Your task to perform on an android device: Empty the shopping cart on walmart. Search for energizer triple a on walmart, select the first entry, add it to the cart, then select checkout. Image 0: 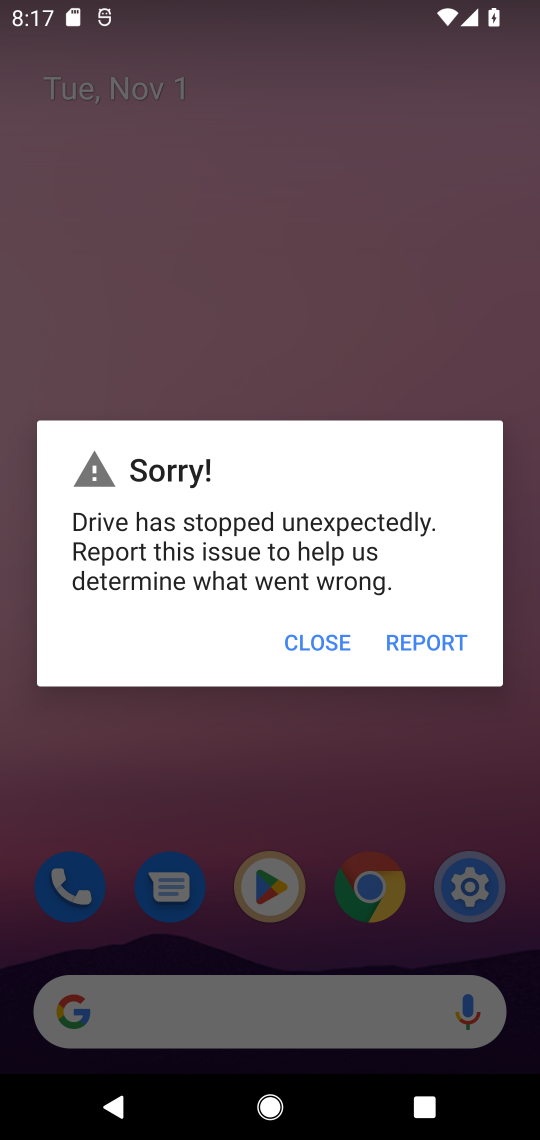
Step 0: press home button
Your task to perform on an android device: Empty the shopping cart on walmart. Search for energizer triple a on walmart, select the first entry, add it to the cart, then select checkout. Image 1: 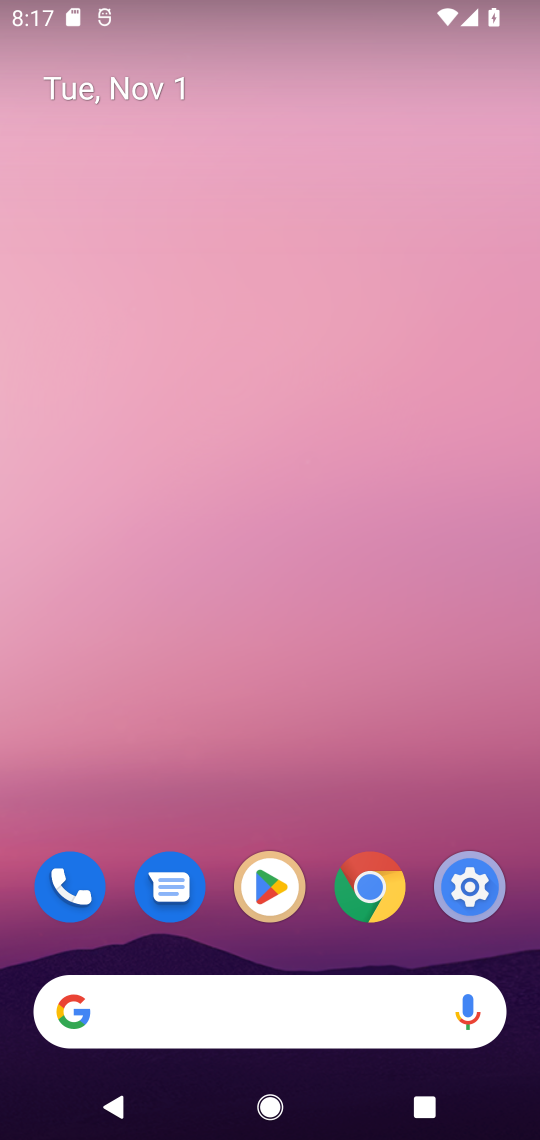
Step 1: drag from (246, 703) to (238, 242)
Your task to perform on an android device: Empty the shopping cart on walmart. Search for energizer triple a on walmart, select the first entry, add it to the cart, then select checkout. Image 2: 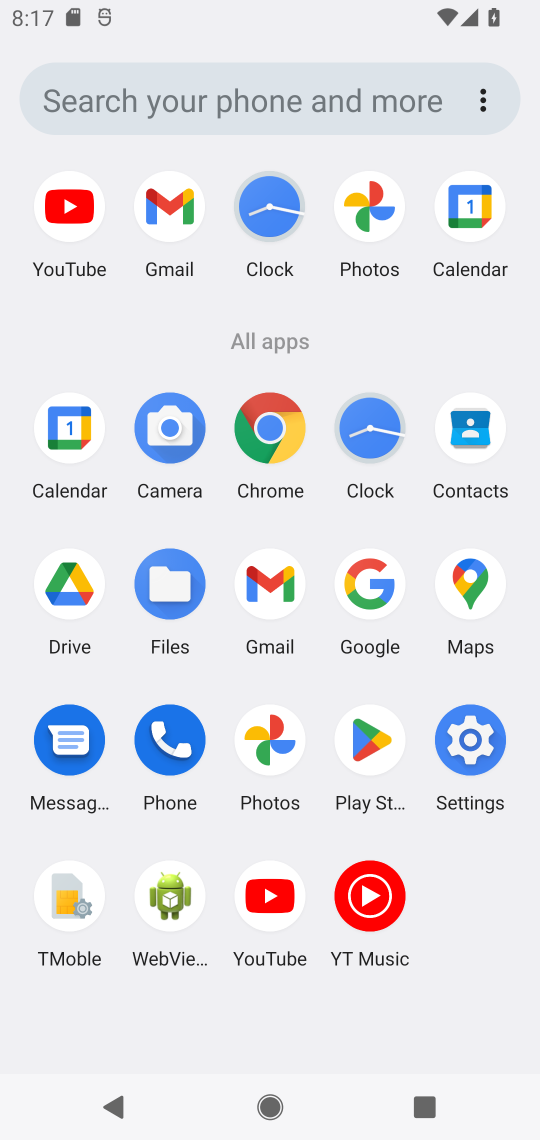
Step 2: click (383, 572)
Your task to perform on an android device: Empty the shopping cart on walmart. Search for energizer triple a on walmart, select the first entry, add it to the cart, then select checkout. Image 3: 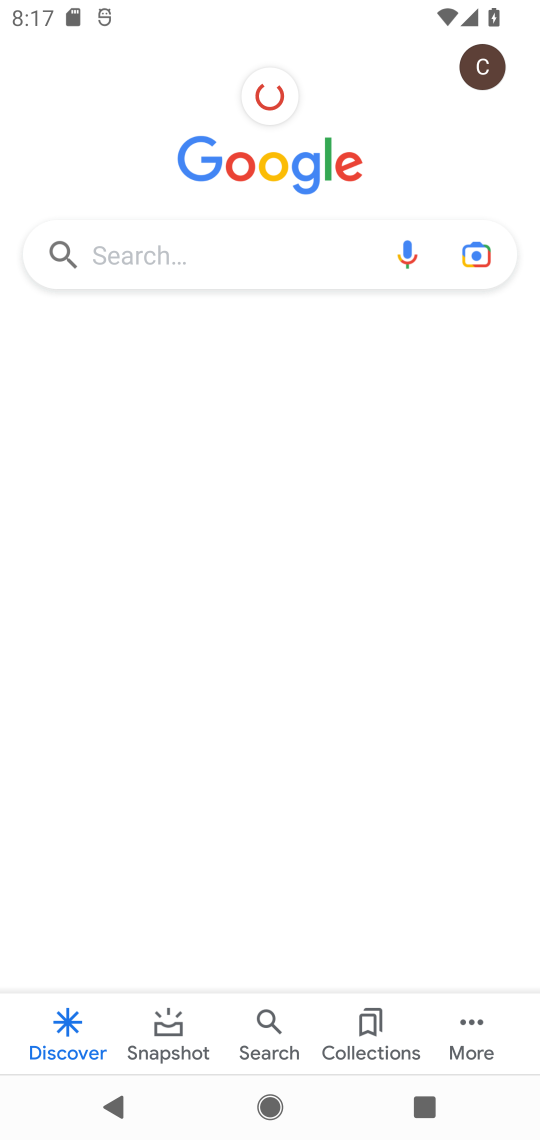
Step 3: click (197, 259)
Your task to perform on an android device: Empty the shopping cart on walmart. Search for energizer triple a on walmart, select the first entry, add it to the cart, then select checkout. Image 4: 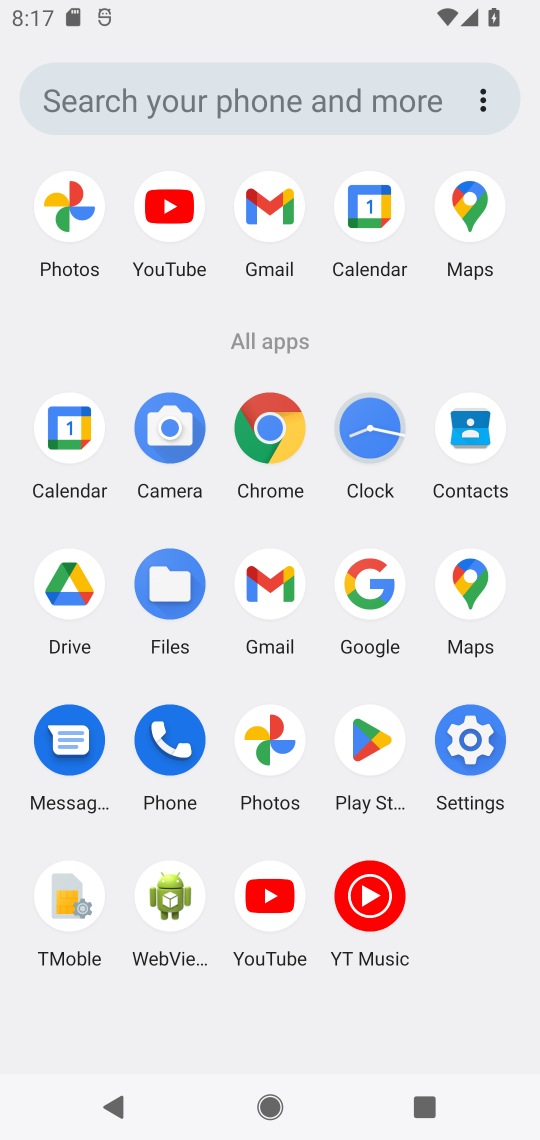
Step 4: click (383, 598)
Your task to perform on an android device: Empty the shopping cart on walmart. Search for energizer triple a on walmart, select the first entry, add it to the cart, then select checkout. Image 5: 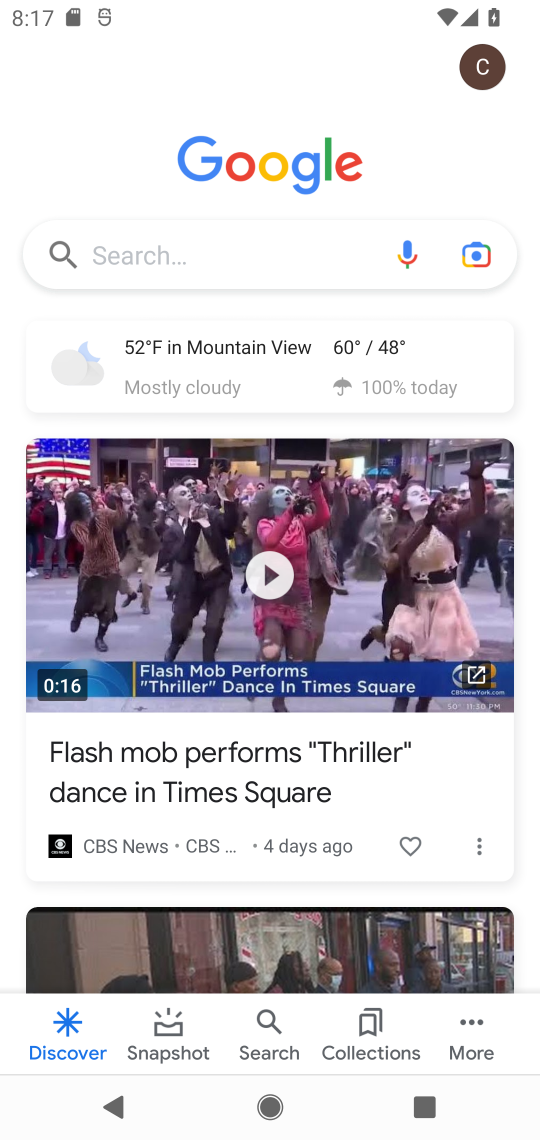
Step 5: click (265, 260)
Your task to perform on an android device: Empty the shopping cart on walmart. Search for energizer triple a on walmart, select the first entry, add it to the cart, then select checkout. Image 6: 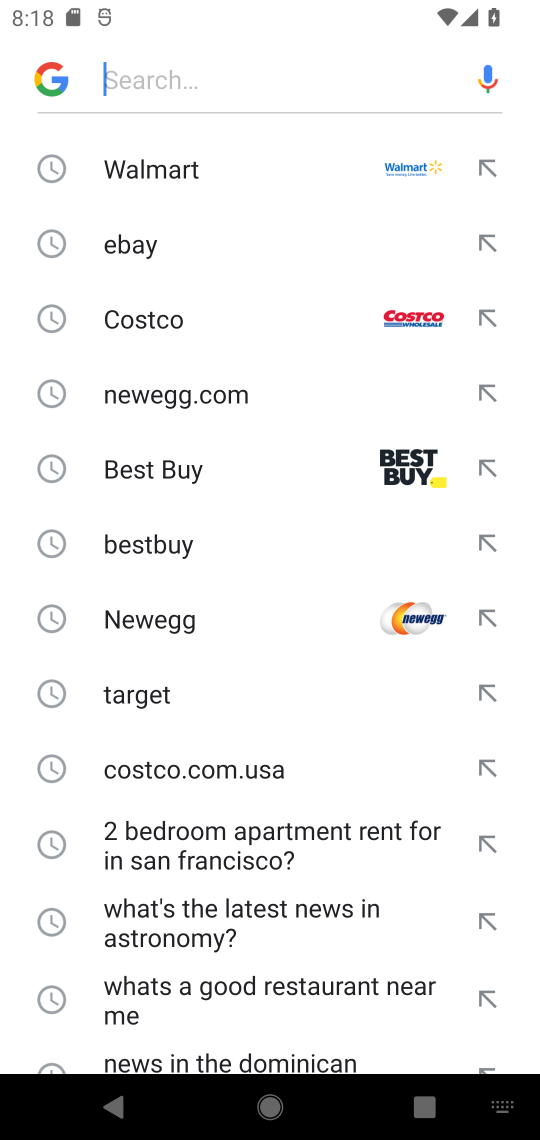
Step 6: click (334, 167)
Your task to perform on an android device: Empty the shopping cart on walmart. Search for energizer triple a on walmart, select the first entry, add it to the cart, then select checkout. Image 7: 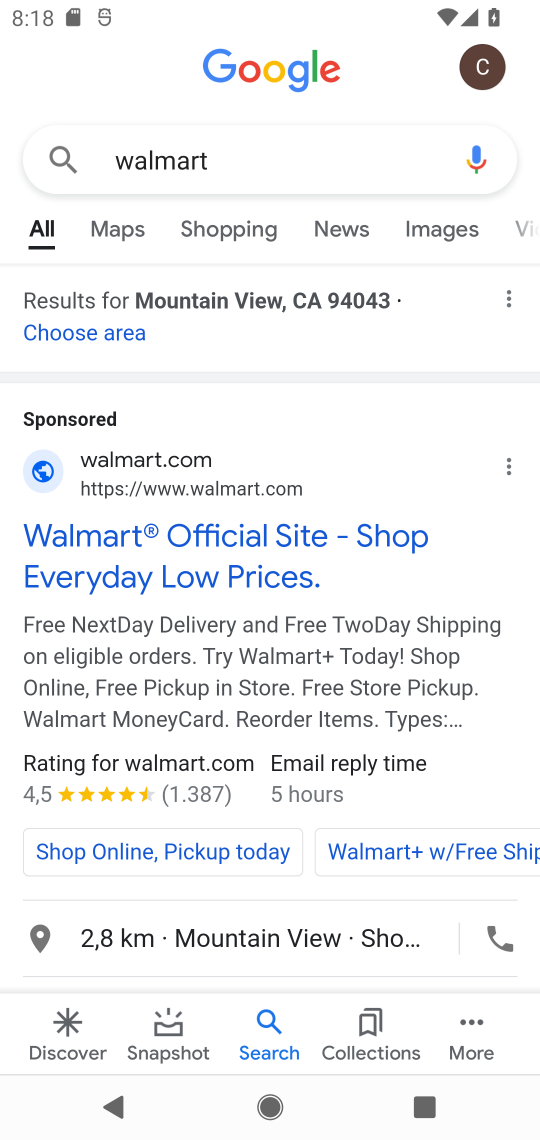
Step 7: click (142, 469)
Your task to perform on an android device: Empty the shopping cart on walmart. Search for energizer triple a on walmart, select the first entry, add it to the cart, then select checkout. Image 8: 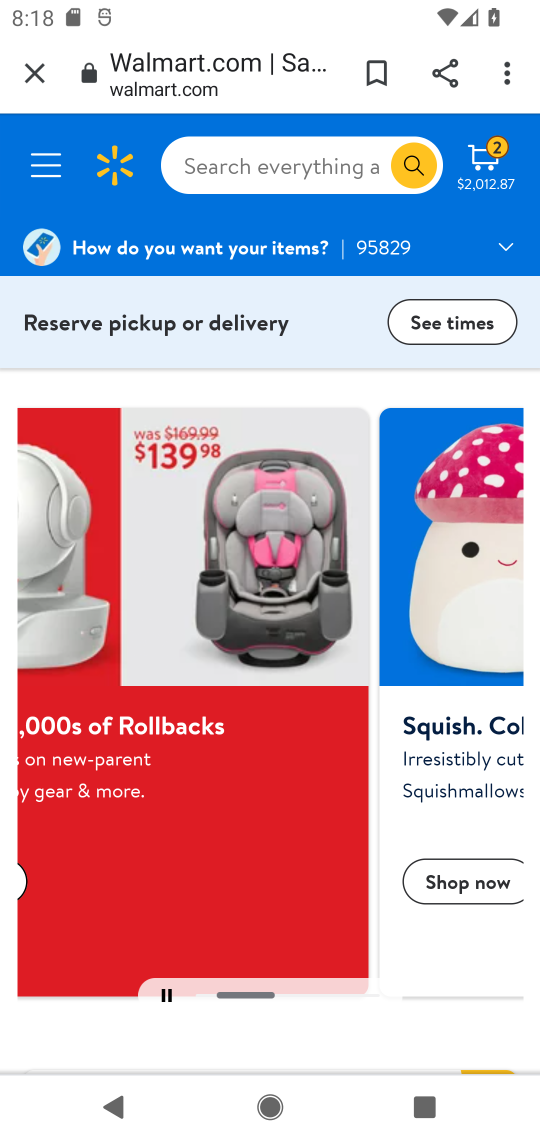
Step 8: click (251, 157)
Your task to perform on an android device: Empty the shopping cart on walmart. Search for energizer triple a on walmart, select the first entry, add it to the cart, then select checkout. Image 9: 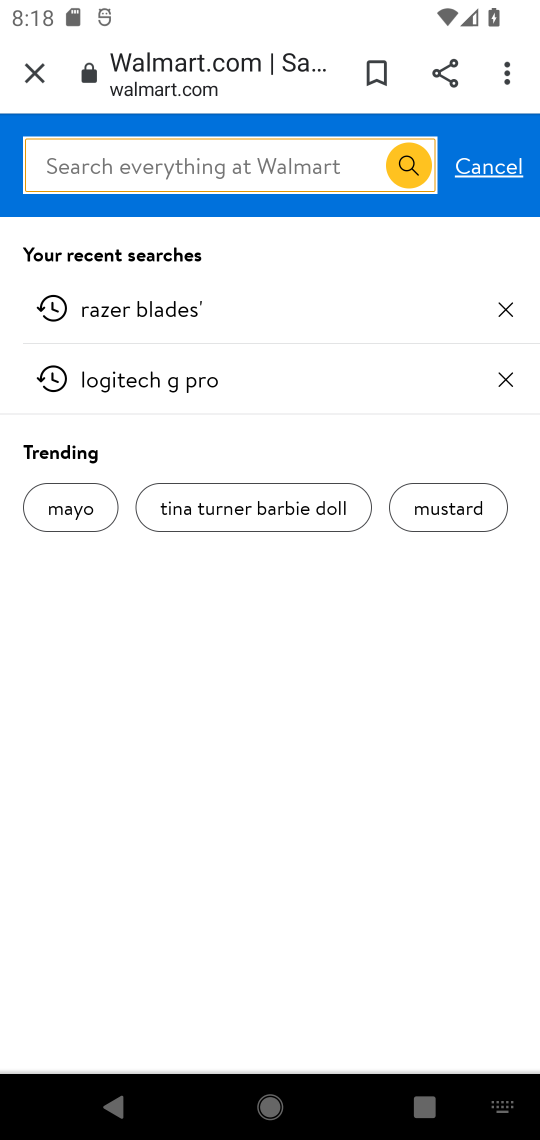
Step 9: type "energizer triple a "
Your task to perform on an android device: Empty the shopping cart on walmart. Search for energizer triple a on walmart, select the first entry, add it to the cart, then select checkout. Image 10: 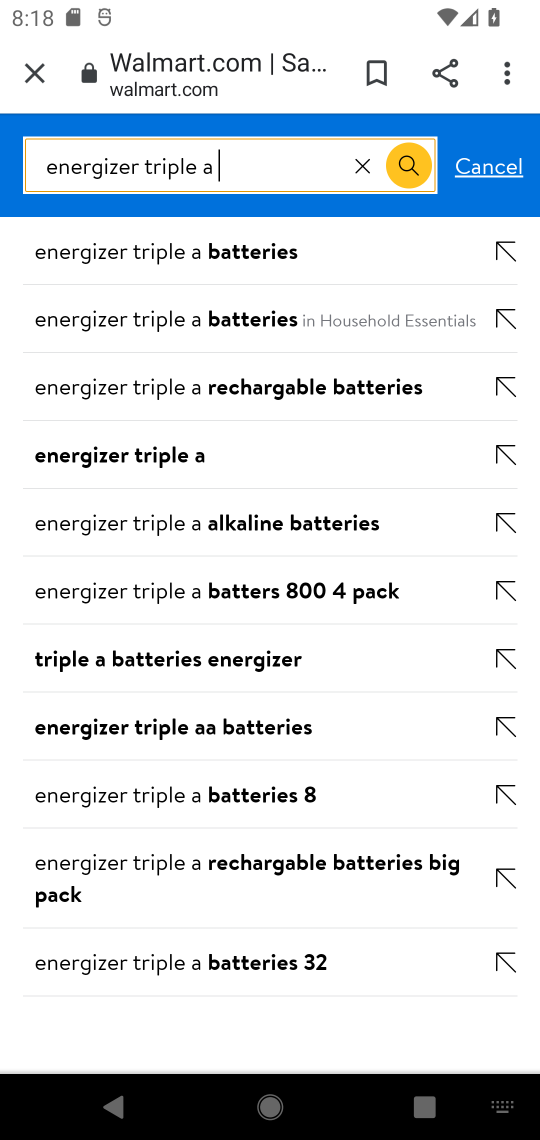
Step 10: click (192, 254)
Your task to perform on an android device: Empty the shopping cart on walmart. Search for energizer triple a on walmart, select the first entry, add it to the cart, then select checkout. Image 11: 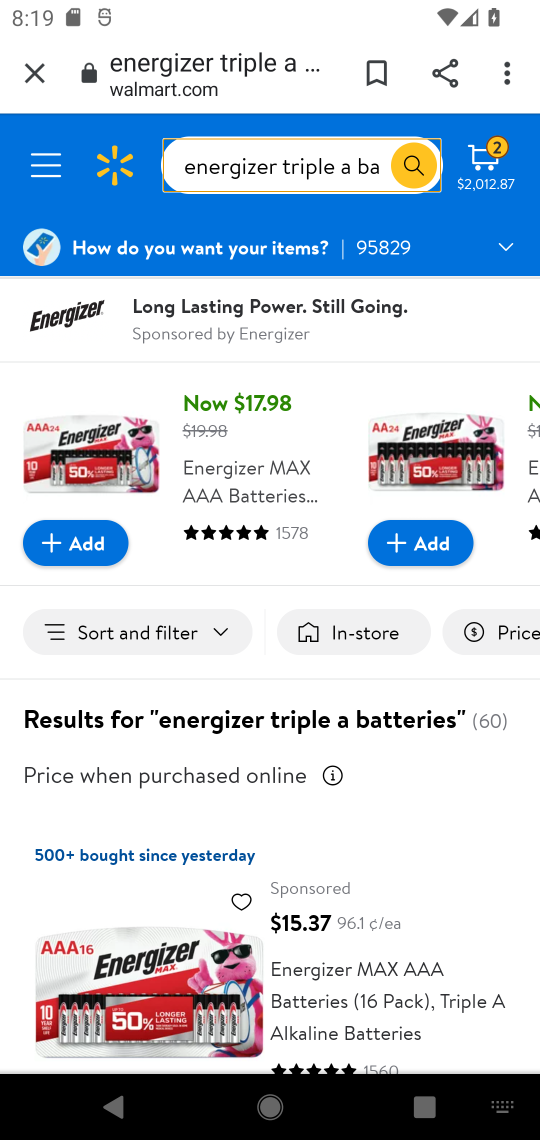
Step 11: drag from (405, 774) to (349, 471)
Your task to perform on an android device: Empty the shopping cart on walmart. Search for energizer triple a on walmart, select the first entry, add it to the cart, then select checkout. Image 12: 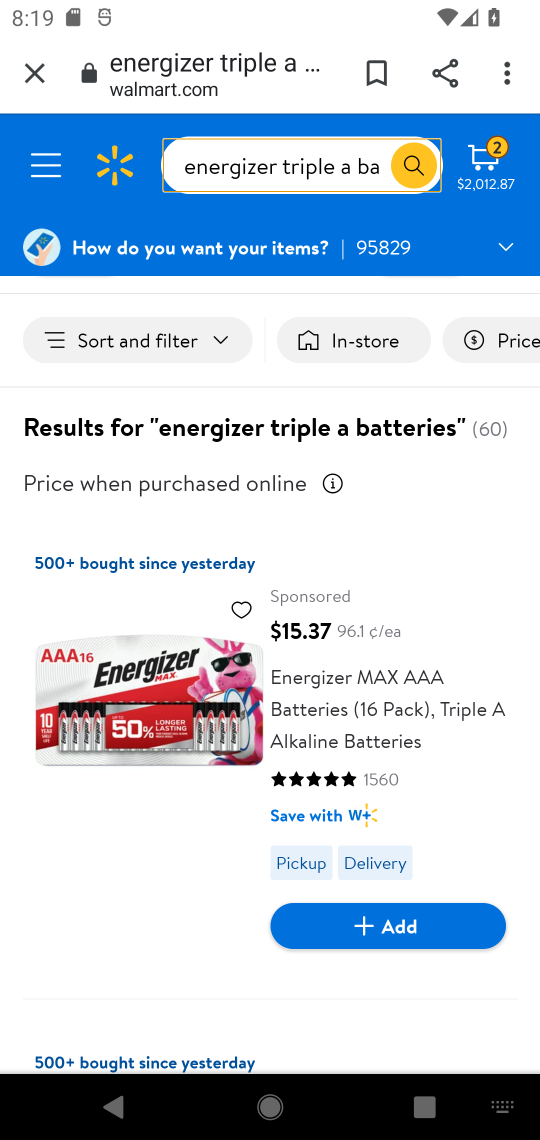
Step 12: click (381, 912)
Your task to perform on an android device: Empty the shopping cart on walmart. Search for energizer triple a on walmart, select the first entry, add it to the cart, then select checkout. Image 13: 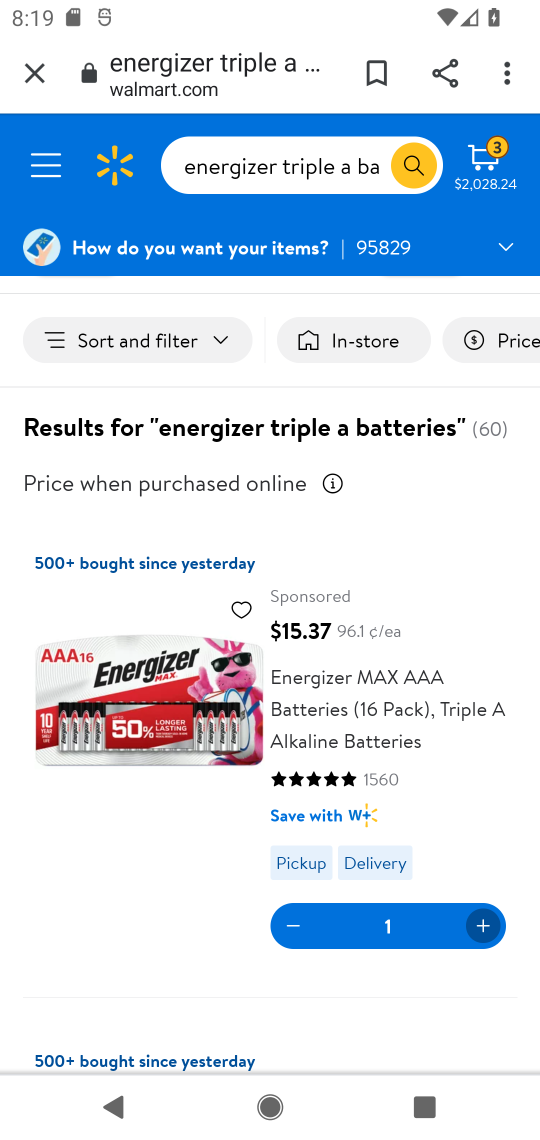
Step 13: task complete